Your task to perform on an android device: Is it going to rain tomorrow? Image 0: 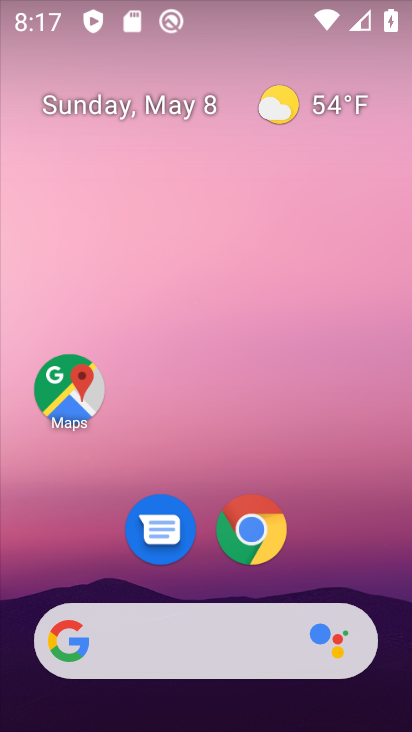
Step 0: press home button
Your task to perform on an android device: Is it going to rain tomorrow? Image 1: 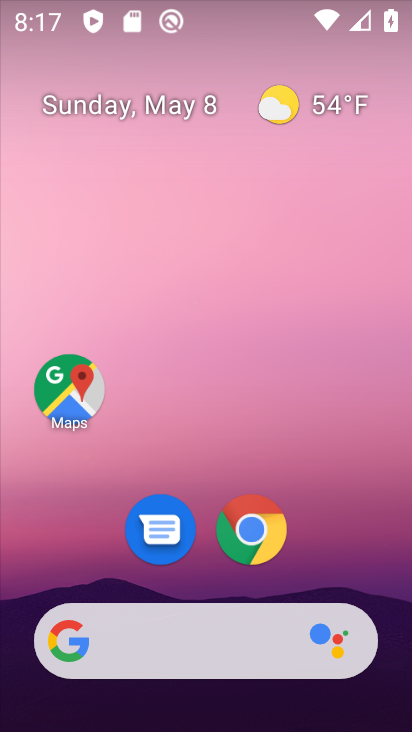
Step 1: drag from (370, 547) to (371, 37)
Your task to perform on an android device: Is it going to rain tomorrow? Image 2: 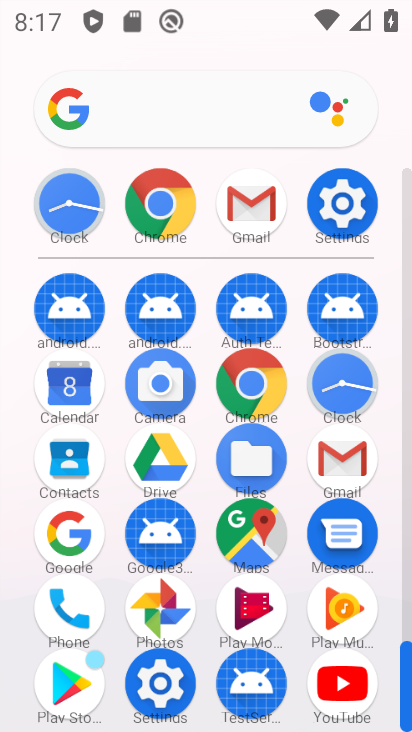
Step 2: click (262, 386)
Your task to perform on an android device: Is it going to rain tomorrow? Image 3: 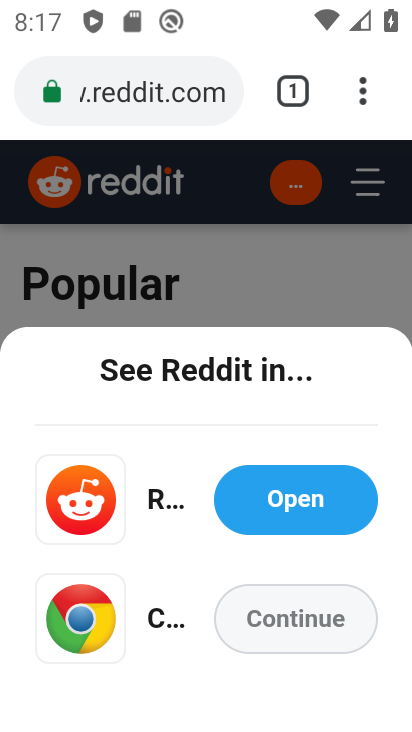
Step 3: click (176, 85)
Your task to perform on an android device: Is it going to rain tomorrow? Image 4: 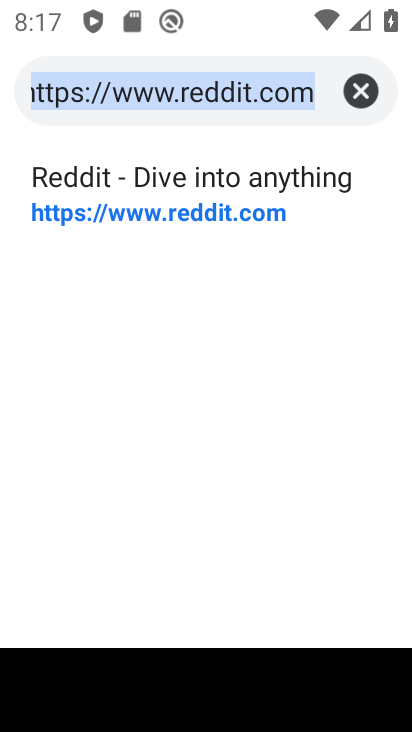
Step 4: click (365, 86)
Your task to perform on an android device: Is it going to rain tomorrow? Image 5: 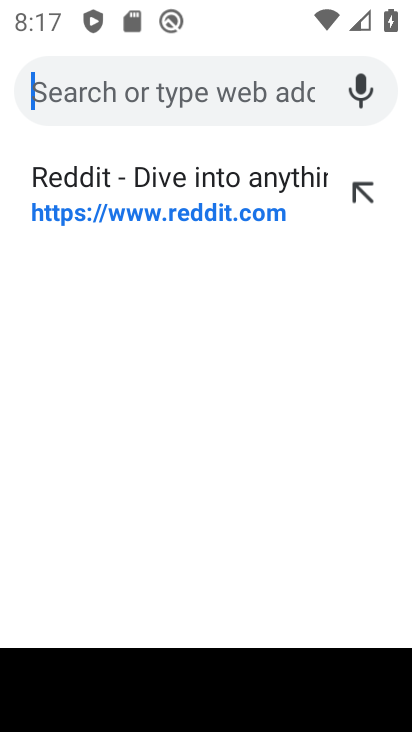
Step 5: click (227, 84)
Your task to perform on an android device: Is it going to rain tomorrow? Image 6: 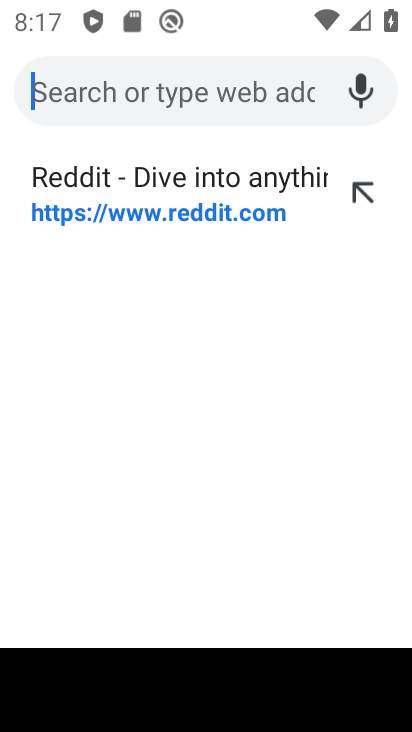
Step 6: type "is it going to rain tomorrow"
Your task to perform on an android device: Is it going to rain tomorrow? Image 7: 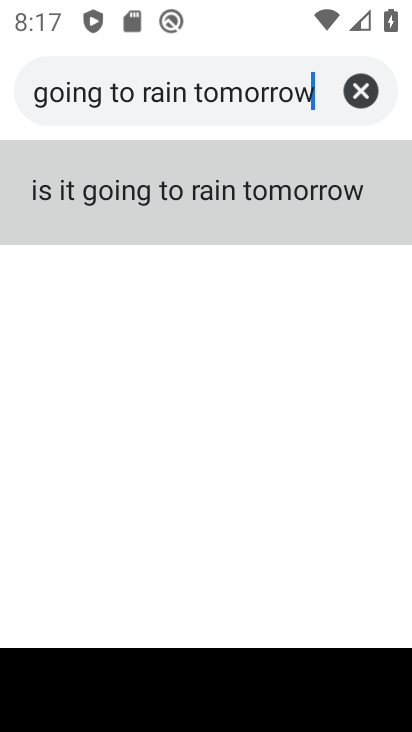
Step 7: click (161, 195)
Your task to perform on an android device: Is it going to rain tomorrow? Image 8: 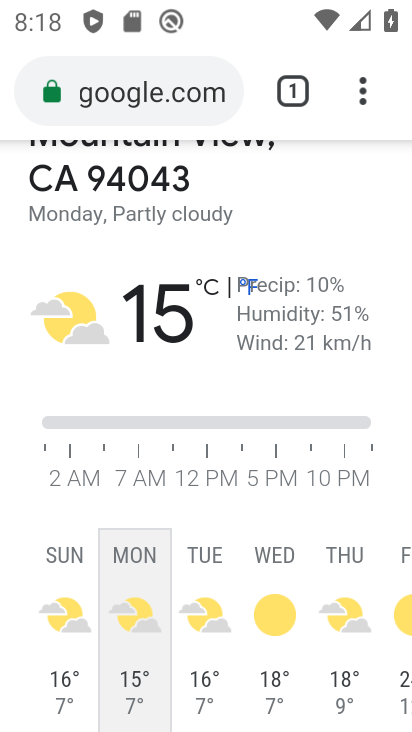
Step 8: task complete